Your task to perform on an android device: stop showing notifications on the lock screen Image 0: 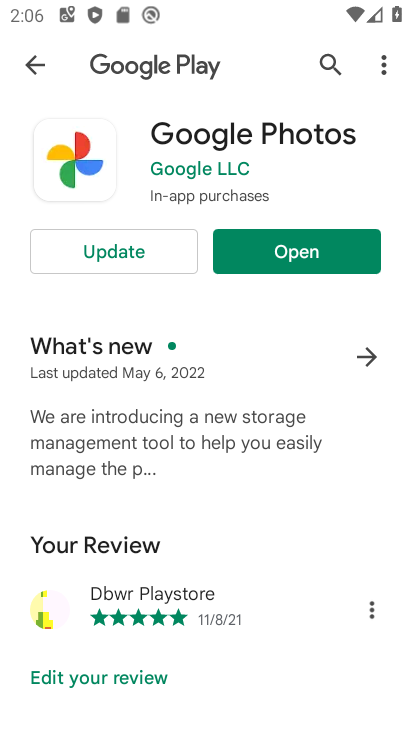
Step 0: press home button
Your task to perform on an android device: stop showing notifications on the lock screen Image 1: 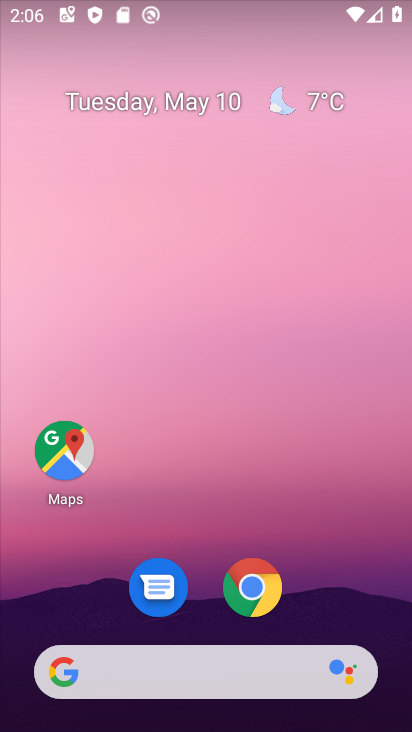
Step 1: drag from (323, 581) to (279, 125)
Your task to perform on an android device: stop showing notifications on the lock screen Image 2: 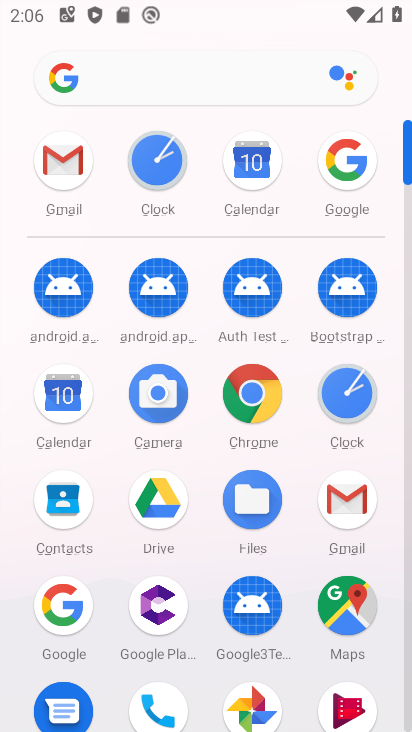
Step 2: drag from (205, 246) to (187, 26)
Your task to perform on an android device: stop showing notifications on the lock screen Image 3: 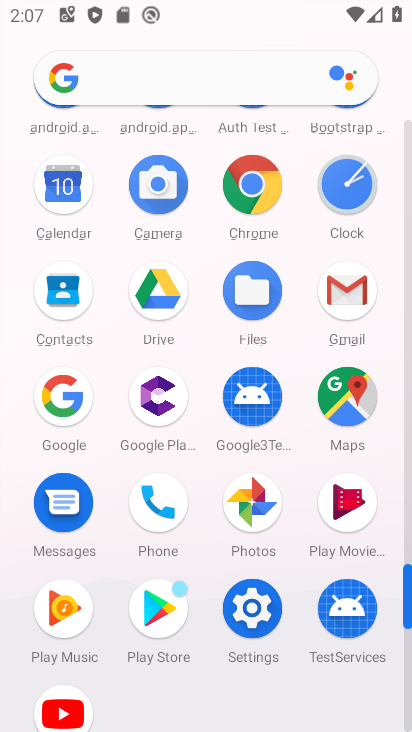
Step 3: click (248, 608)
Your task to perform on an android device: stop showing notifications on the lock screen Image 4: 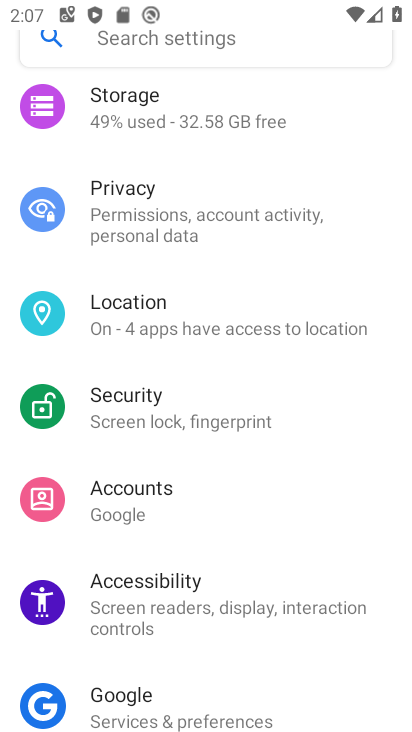
Step 4: drag from (223, 220) to (239, 393)
Your task to perform on an android device: stop showing notifications on the lock screen Image 5: 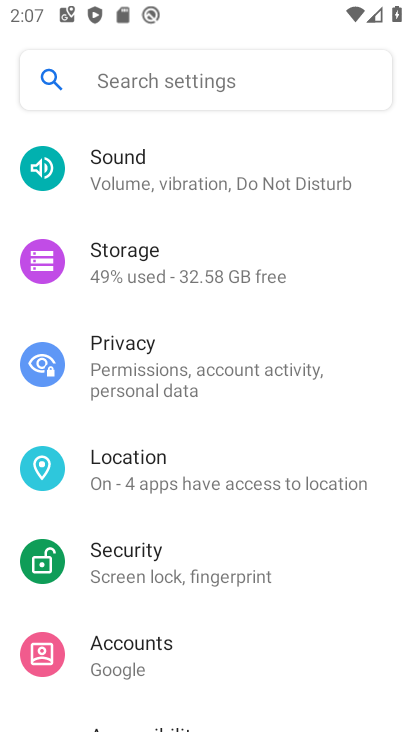
Step 5: drag from (187, 174) to (211, 479)
Your task to perform on an android device: stop showing notifications on the lock screen Image 6: 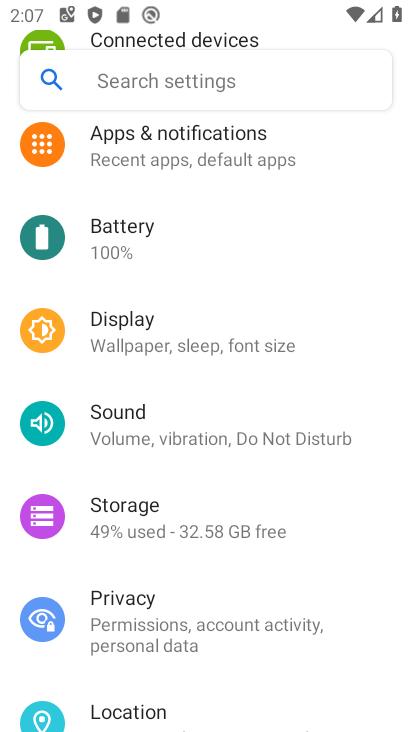
Step 6: click (208, 166)
Your task to perform on an android device: stop showing notifications on the lock screen Image 7: 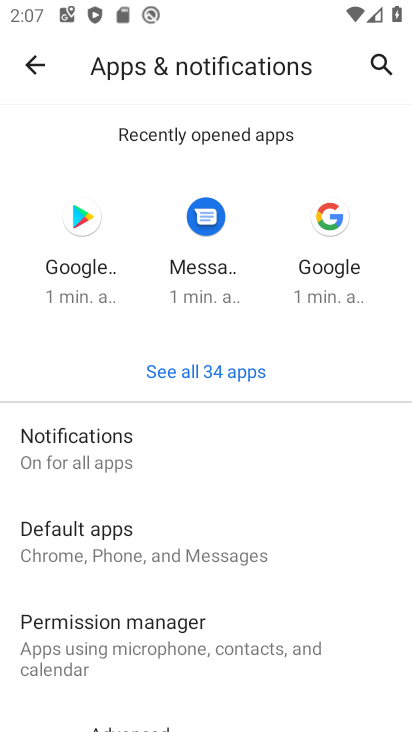
Step 7: click (150, 454)
Your task to perform on an android device: stop showing notifications on the lock screen Image 8: 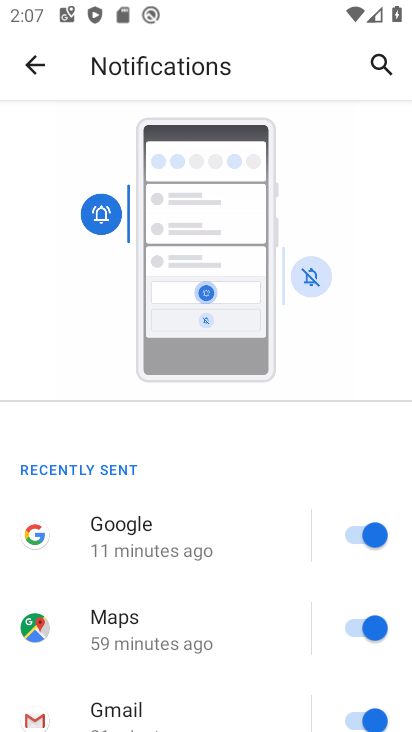
Step 8: drag from (226, 574) to (202, 177)
Your task to perform on an android device: stop showing notifications on the lock screen Image 9: 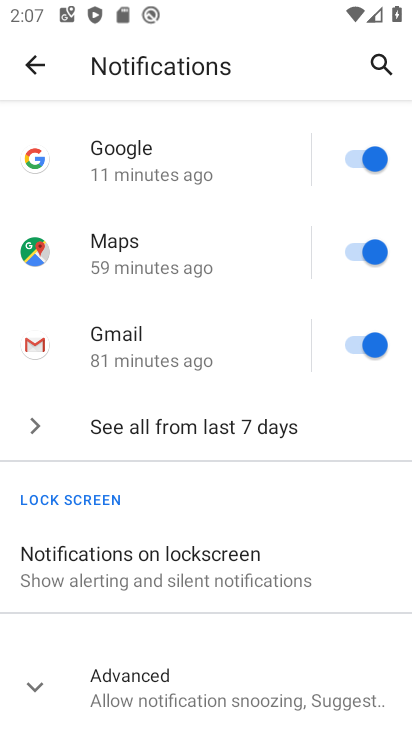
Step 9: click (232, 577)
Your task to perform on an android device: stop showing notifications on the lock screen Image 10: 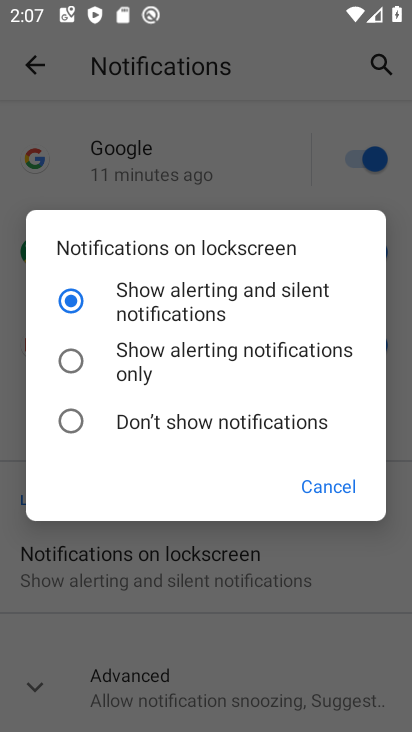
Step 10: click (170, 423)
Your task to perform on an android device: stop showing notifications on the lock screen Image 11: 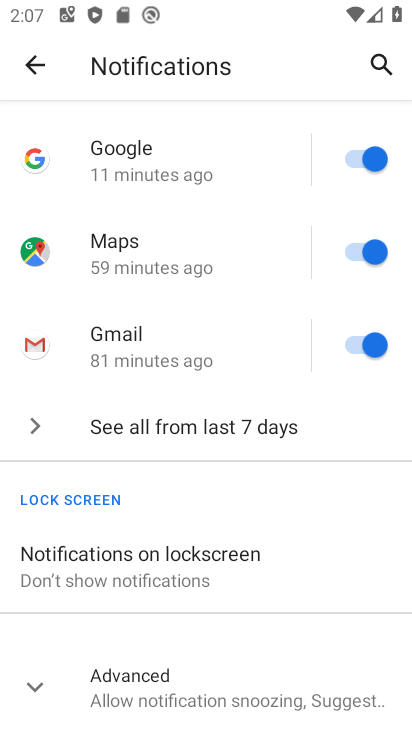
Step 11: task complete